Your task to perform on an android device: turn on bluetooth scan Image 0: 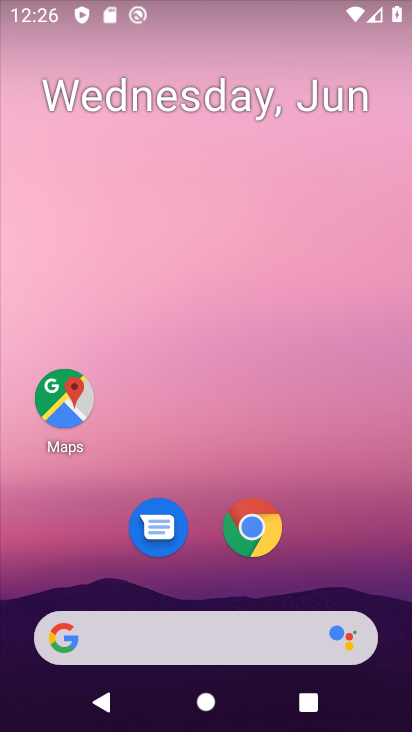
Step 0: drag from (181, 630) to (205, 217)
Your task to perform on an android device: turn on bluetooth scan Image 1: 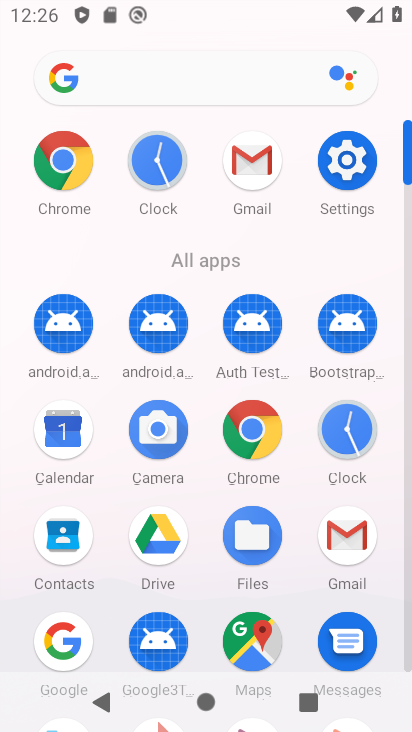
Step 1: click (350, 147)
Your task to perform on an android device: turn on bluetooth scan Image 2: 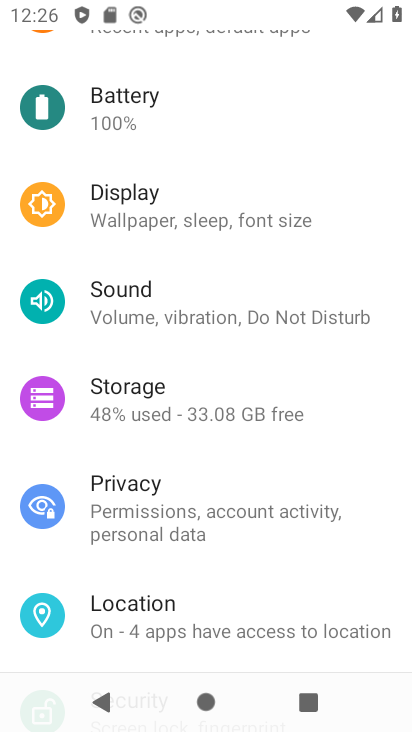
Step 2: drag from (113, 478) to (103, 46)
Your task to perform on an android device: turn on bluetooth scan Image 3: 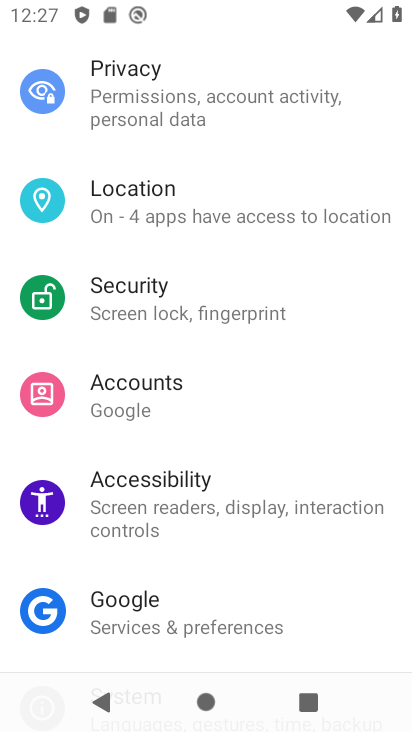
Step 3: click (139, 190)
Your task to perform on an android device: turn on bluetooth scan Image 4: 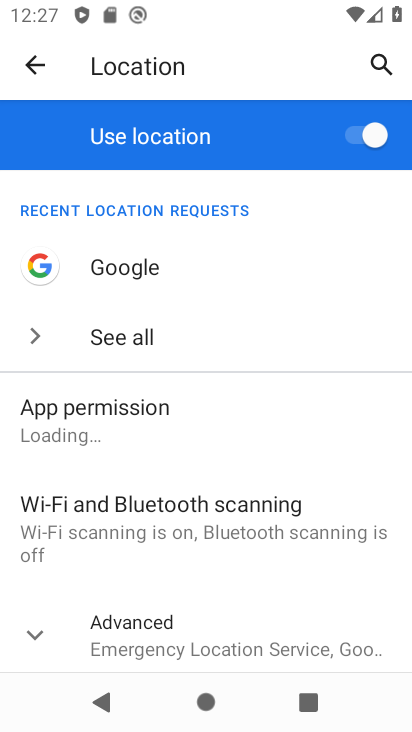
Step 4: click (189, 523)
Your task to perform on an android device: turn on bluetooth scan Image 5: 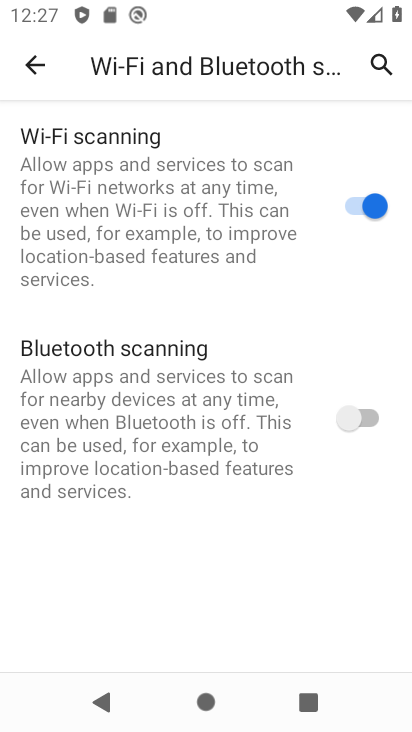
Step 5: click (370, 426)
Your task to perform on an android device: turn on bluetooth scan Image 6: 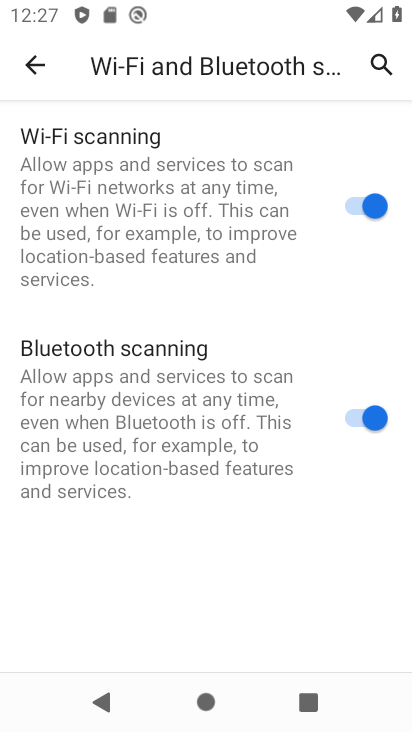
Step 6: task complete